Your task to perform on an android device: Open wifi settings Image 0: 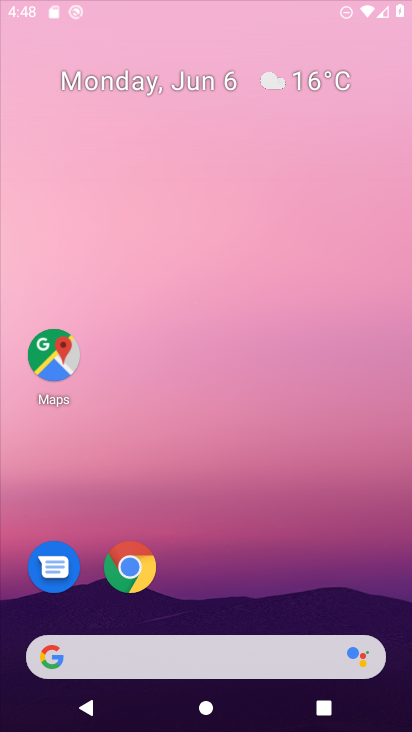
Step 0: drag from (240, 570) to (165, 28)
Your task to perform on an android device: Open wifi settings Image 1: 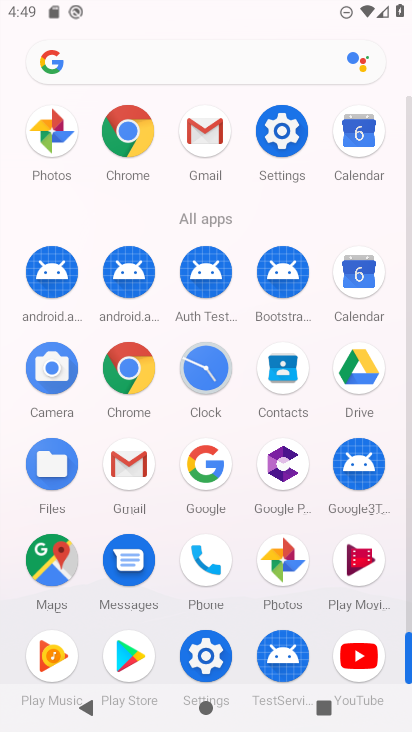
Step 1: click (278, 140)
Your task to perform on an android device: Open wifi settings Image 2: 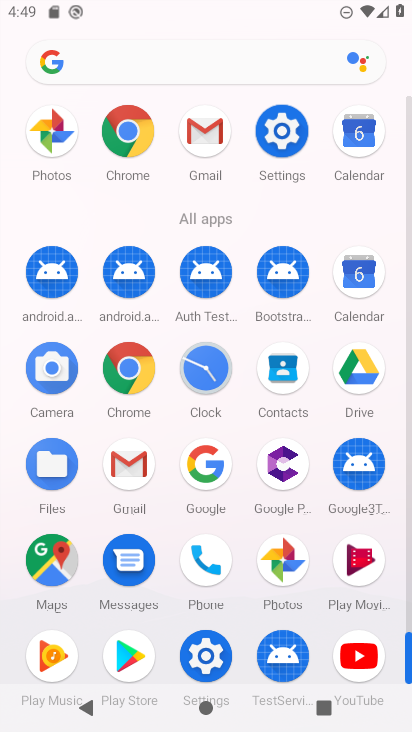
Step 2: click (277, 139)
Your task to perform on an android device: Open wifi settings Image 3: 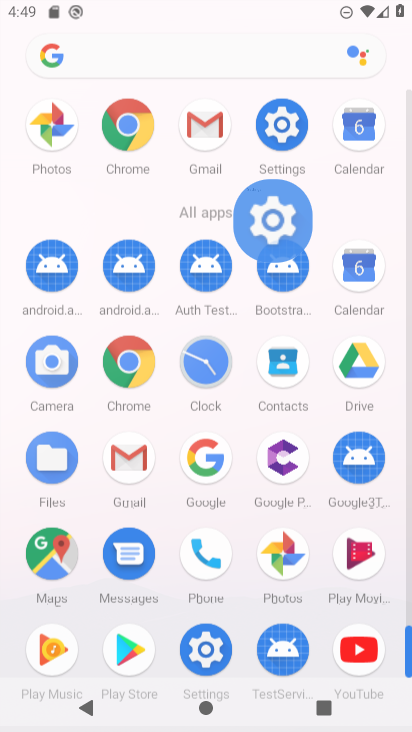
Step 3: click (277, 139)
Your task to perform on an android device: Open wifi settings Image 4: 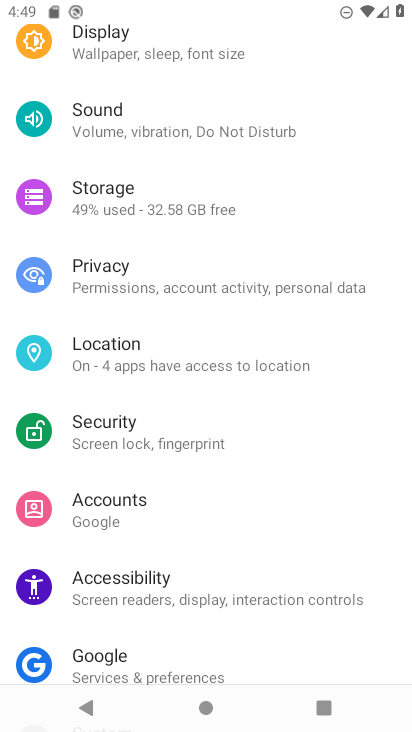
Step 4: drag from (97, 110) to (151, 499)
Your task to perform on an android device: Open wifi settings Image 5: 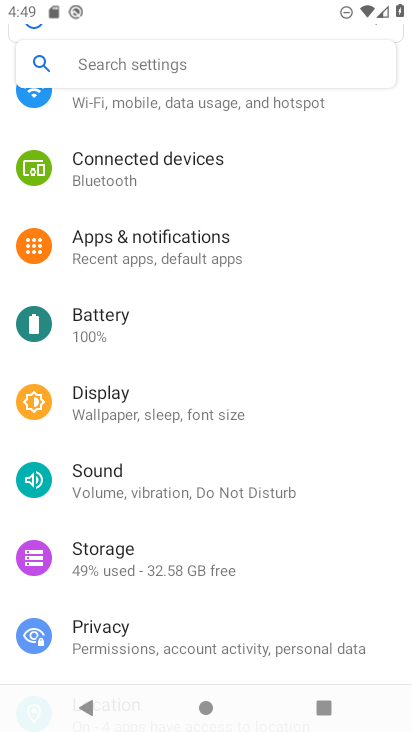
Step 5: drag from (126, 211) to (116, 681)
Your task to perform on an android device: Open wifi settings Image 6: 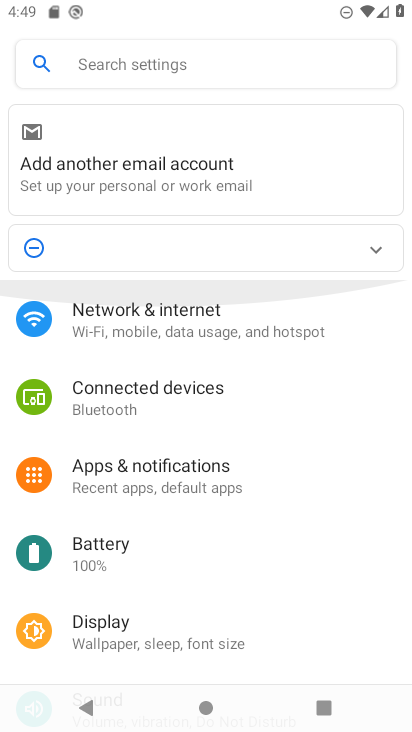
Step 6: drag from (159, 193) to (175, 621)
Your task to perform on an android device: Open wifi settings Image 7: 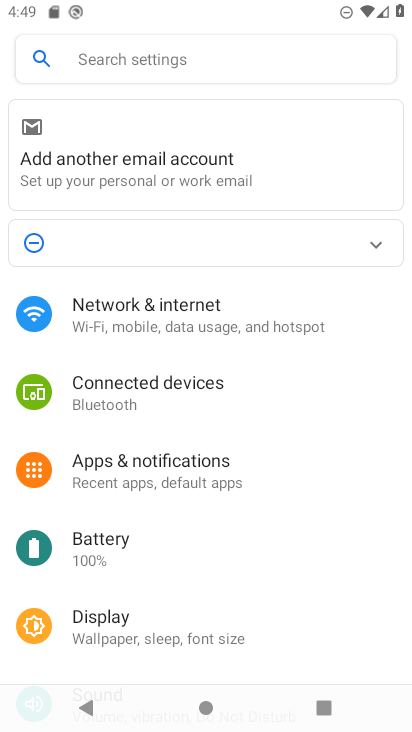
Step 7: click (157, 310)
Your task to perform on an android device: Open wifi settings Image 8: 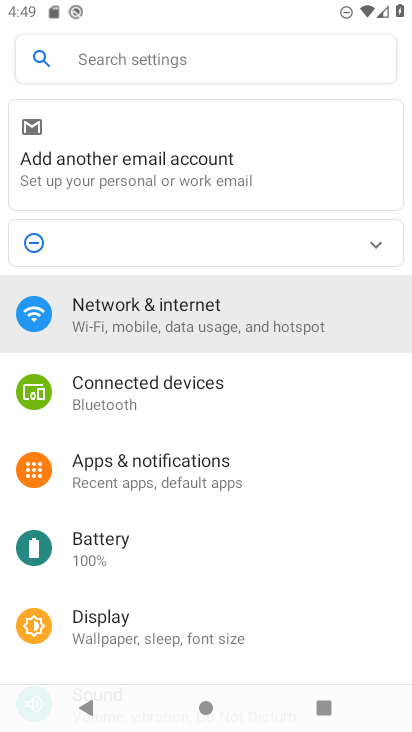
Step 8: click (157, 310)
Your task to perform on an android device: Open wifi settings Image 9: 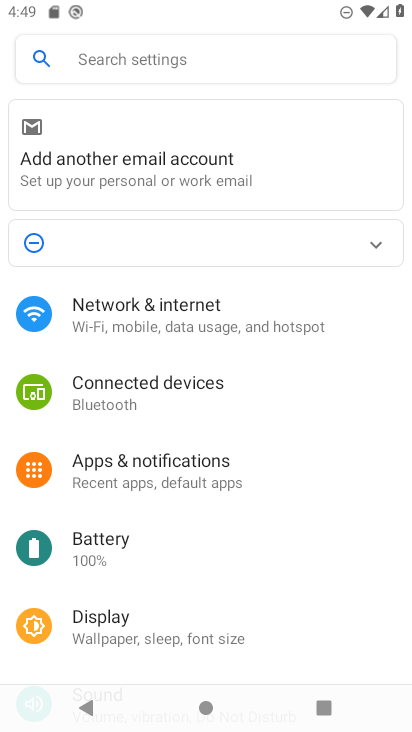
Step 9: click (157, 310)
Your task to perform on an android device: Open wifi settings Image 10: 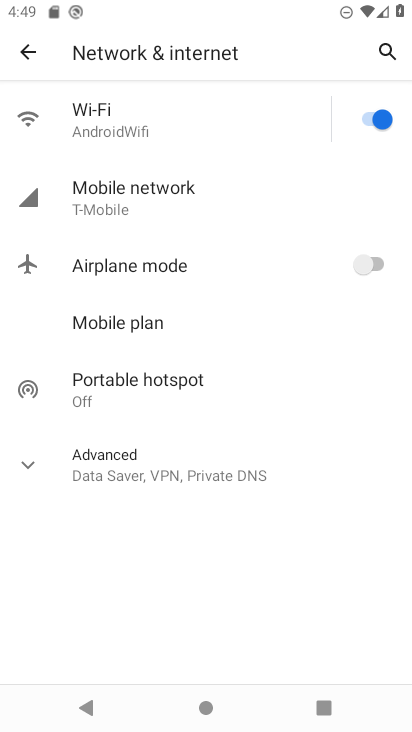
Step 10: task complete